Your task to perform on an android device: What is the recent news? Image 0: 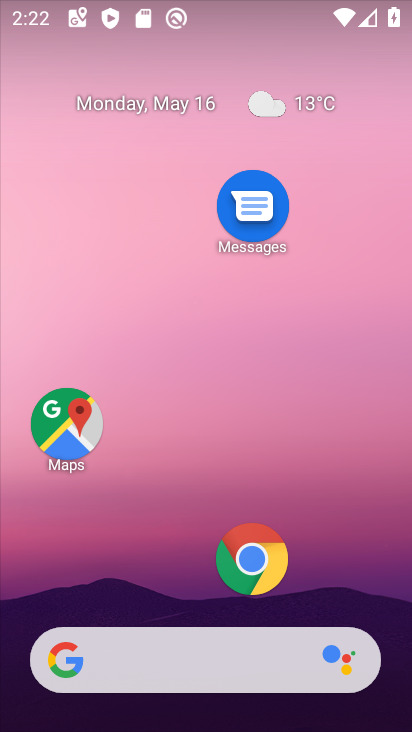
Step 0: click (255, 556)
Your task to perform on an android device: What is the recent news? Image 1: 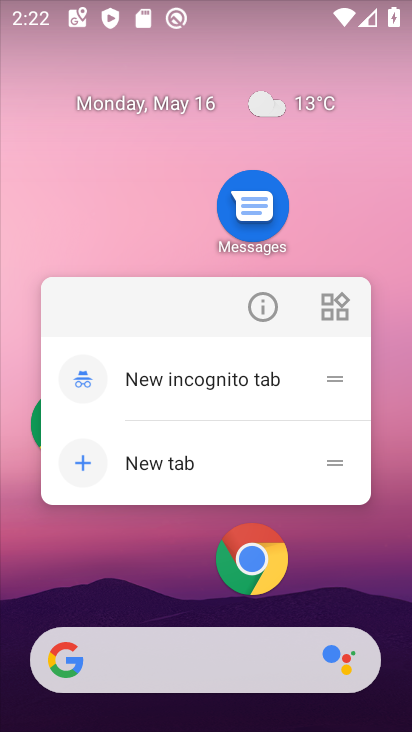
Step 1: click (255, 558)
Your task to perform on an android device: What is the recent news? Image 2: 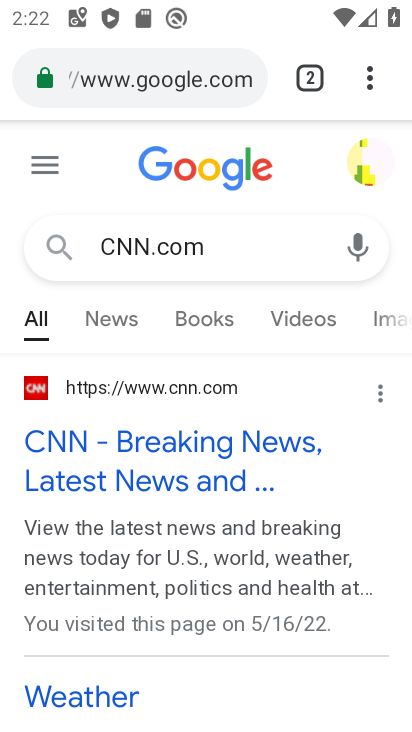
Step 2: click (141, 76)
Your task to perform on an android device: What is the recent news? Image 3: 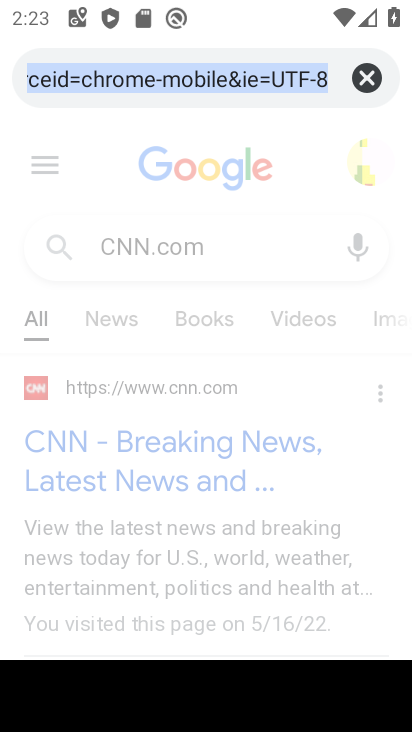
Step 3: type "recent news"
Your task to perform on an android device: What is the recent news? Image 4: 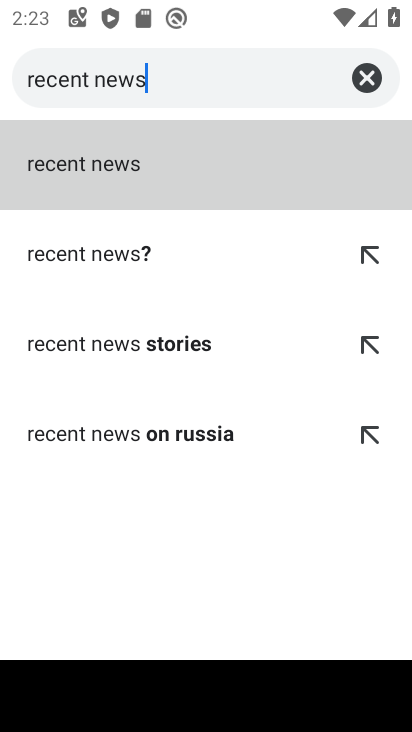
Step 4: click (200, 179)
Your task to perform on an android device: What is the recent news? Image 5: 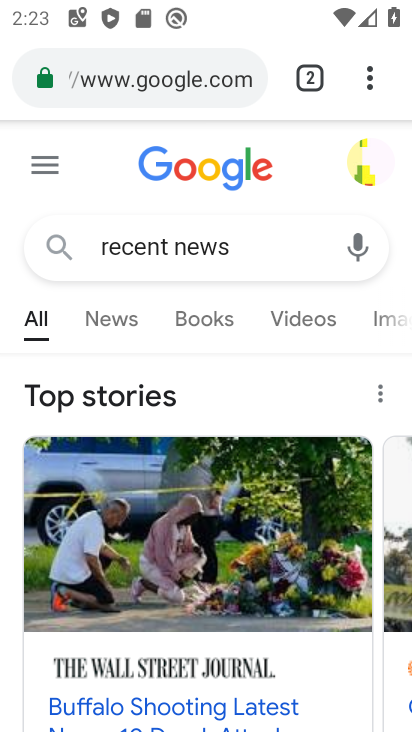
Step 5: task complete